Your task to perform on an android device: Open Chrome and go to settings Image 0: 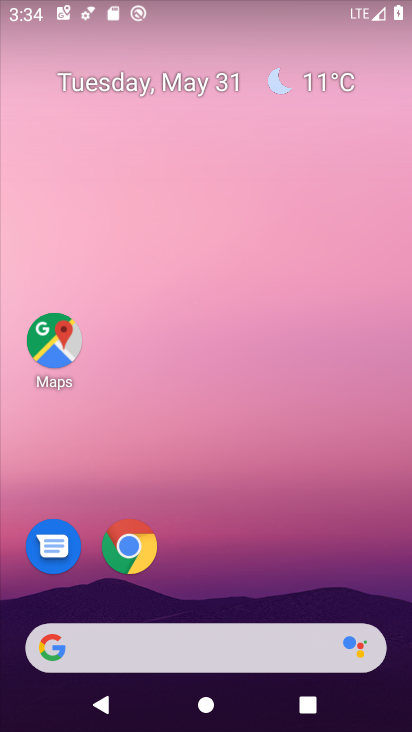
Step 0: click (134, 543)
Your task to perform on an android device: Open Chrome and go to settings Image 1: 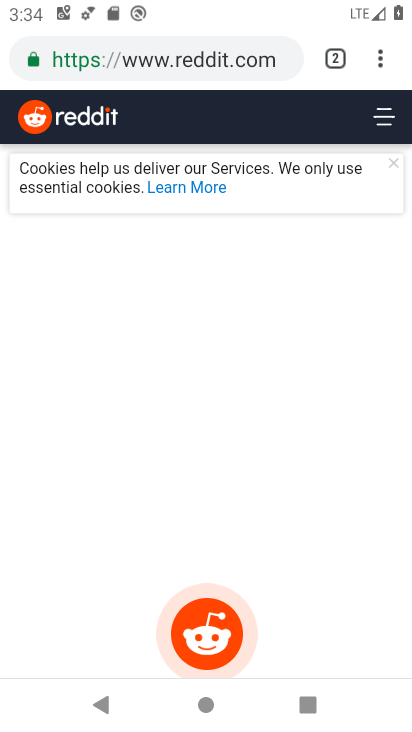
Step 1: click (389, 53)
Your task to perform on an android device: Open Chrome and go to settings Image 2: 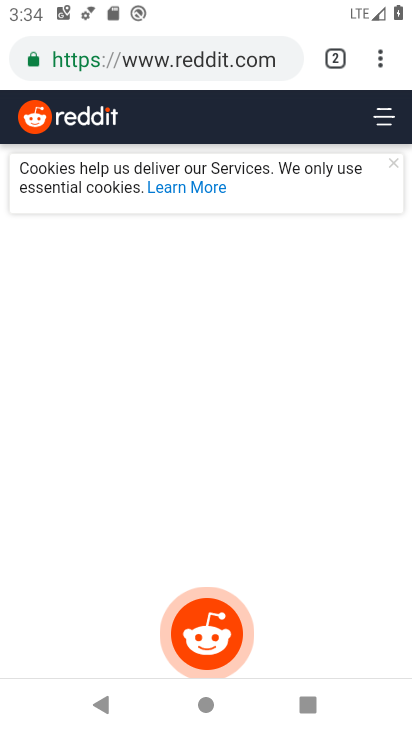
Step 2: click (379, 67)
Your task to perform on an android device: Open Chrome and go to settings Image 3: 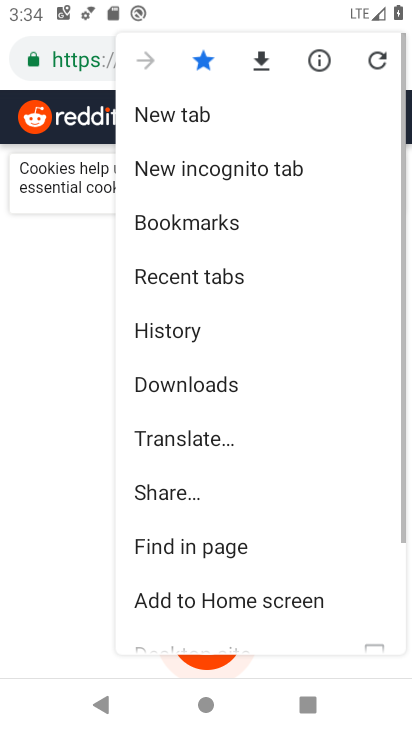
Step 3: drag from (234, 538) to (226, 38)
Your task to perform on an android device: Open Chrome and go to settings Image 4: 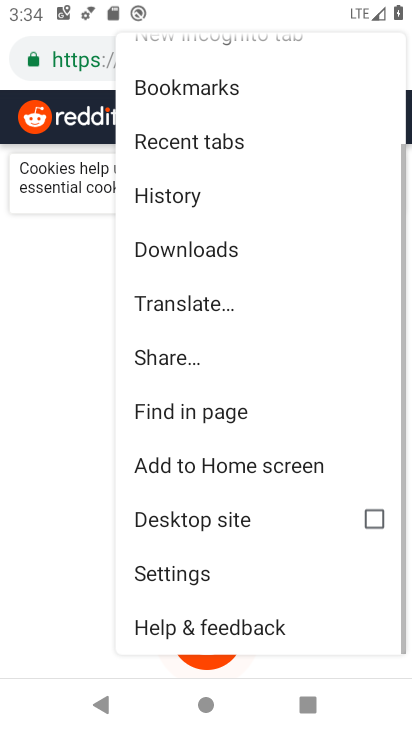
Step 4: click (212, 571)
Your task to perform on an android device: Open Chrome and go to settings Image 5: 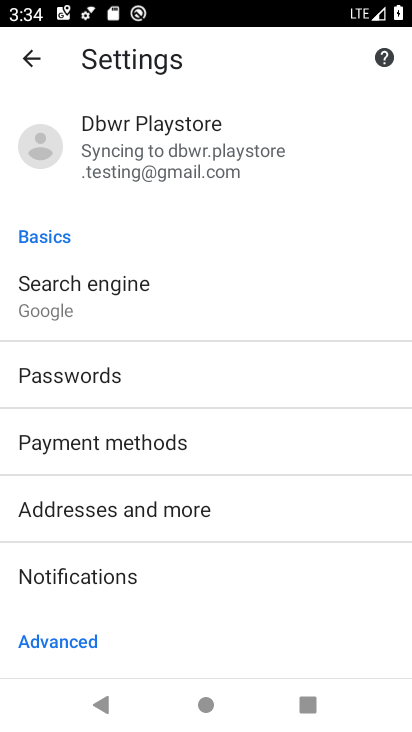
Step 5: task complete